Your task to perform on an android device: Open my contact list Image 0: 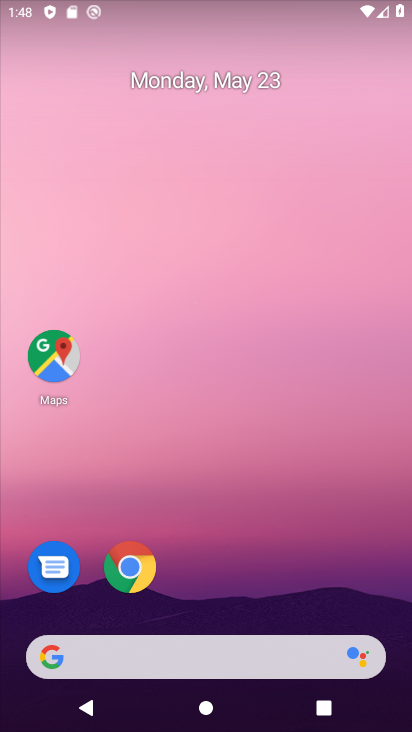
Step 0: drag from (206, 567) to (258, 137)
Your task to perform on an android device: Open my contact list Image 1: 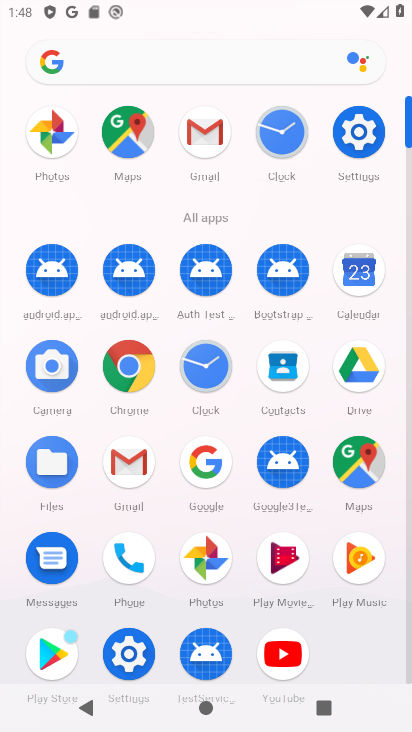
Step 1: click (282, 364)
Your task to perform on an android device: Open my contact list Image 2: 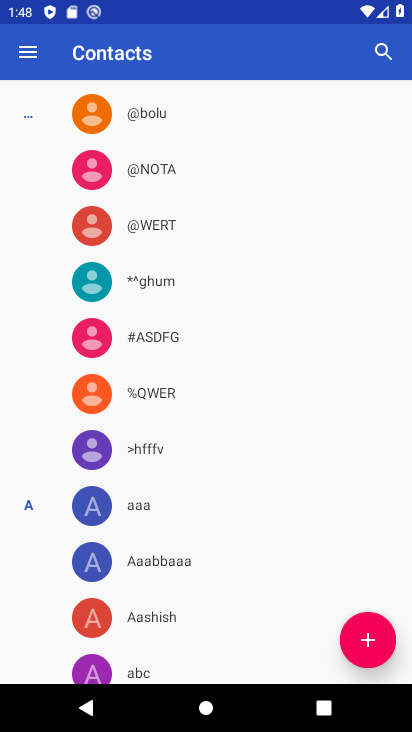
Step 2: task complete